Your task to perform on an android device: Go to Yahoo.com Image 0: 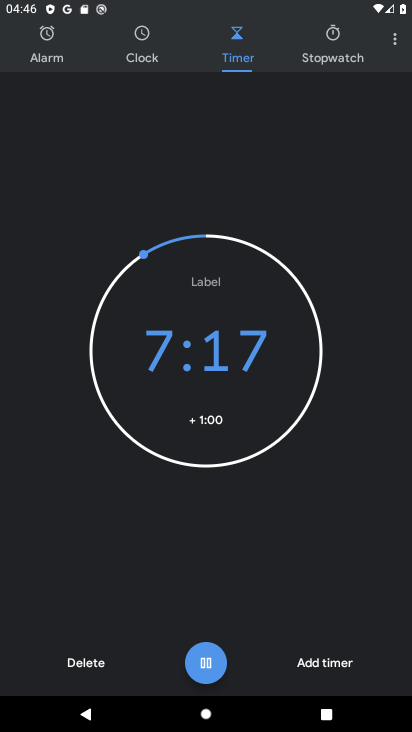
Step 0: click (163, 279)
Your task to perform on an android device: Go to Yahoo.com Image 1: 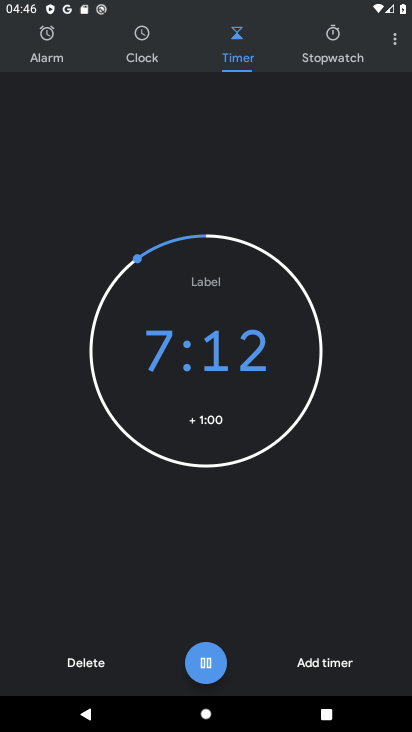
Step 1: press home button
Your task to perform on an android device: Go to Yahoo.com Image 2: 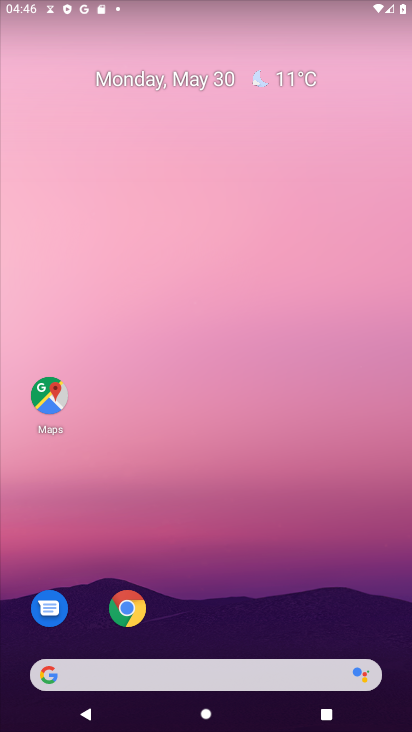
Step 2: drag from (128, 504) to (128, 324)
Your task to perform on an android device: Go to Yahoo.com Image 3: 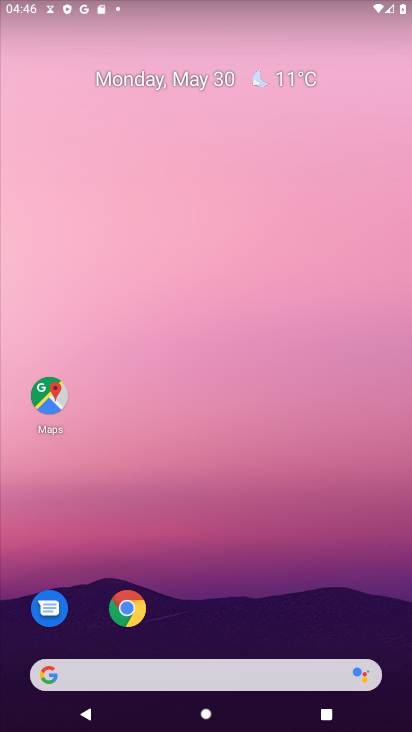
Step 3: drag from (218, 640) to (218, 217)
Your task to perform on an android device: Go to Yahoo.com Image 4: 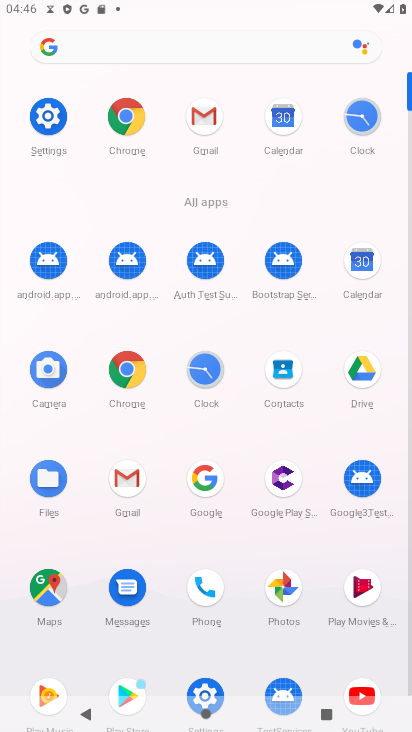
Step 4: click (201, 481)
Your task to perform on an android device: Go to Yahoo.com Image 5: 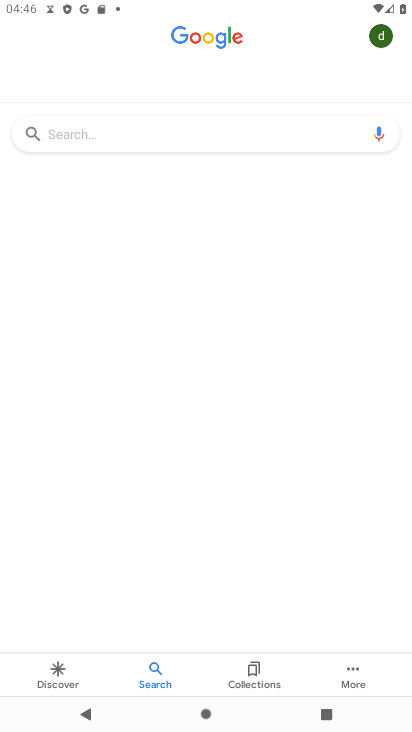
Step 5: click (161, 128)
Your task to perform on an android device: Go to Yahoo.com Image 6: 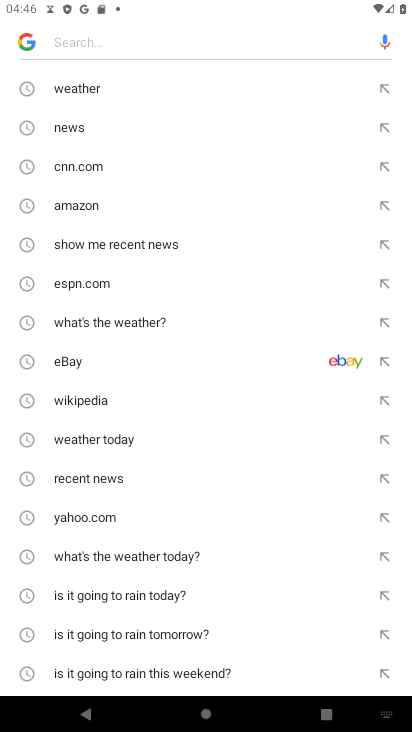
Step 6: click (79, 513)
Your task to perform on an android device: Go to Yahoo.com Image 7: 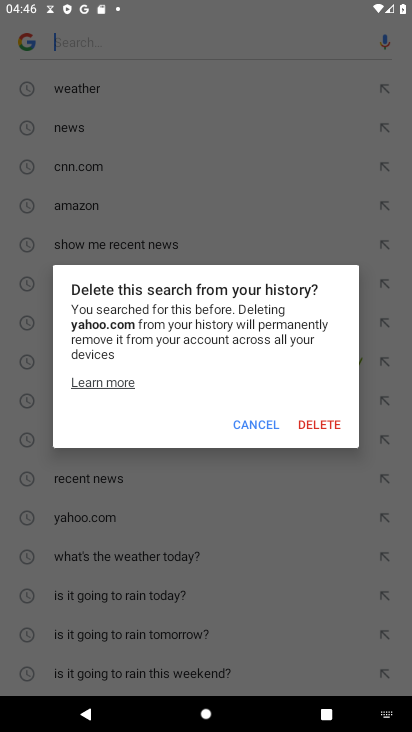
Step 7: click (266, 423)
Your task to perform on an android device: Go to Yahoo.com Image 8: 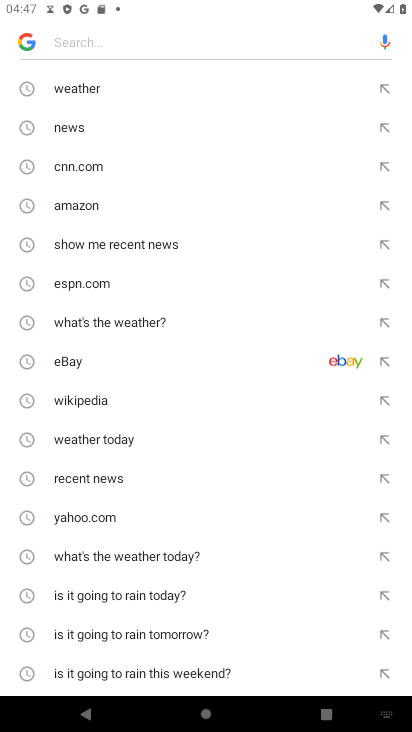
Step 8: click (108, 516)
Your task to perform on an android device: Go to Yahoo.com Image 9: 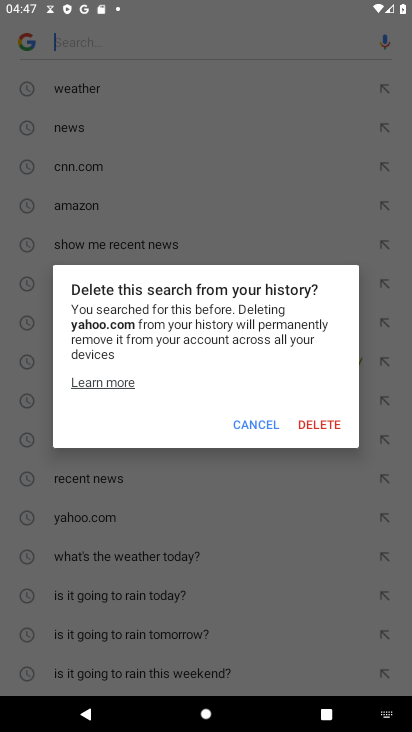
Step 9: click (260, 434)
Your task to perform on an android device: Go to Yahoo.com Image 10: 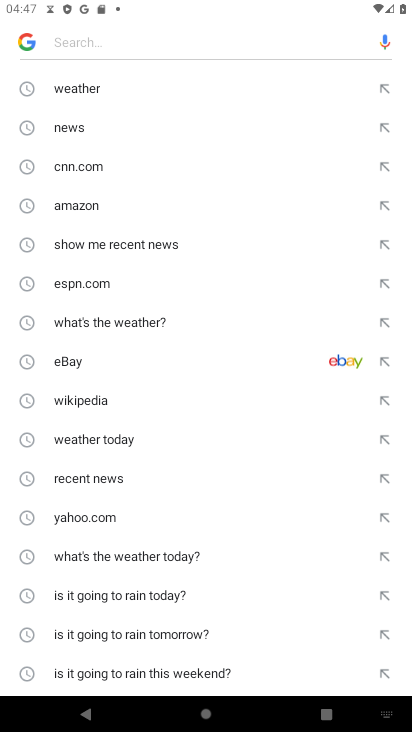
Step 10: click (86, 522)
Your task to perform on an android device: Go to Yahoo.com Image 11: 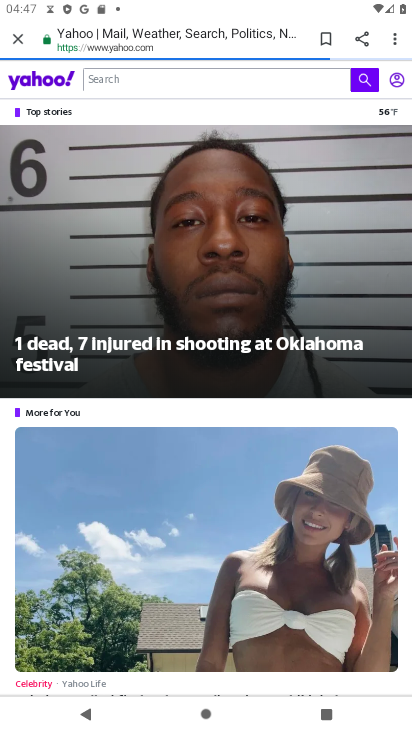
Step 11: task complete